Your task to perform on an android device: Open Google Chrome and click the shortcut for Amazon.com Image 0: 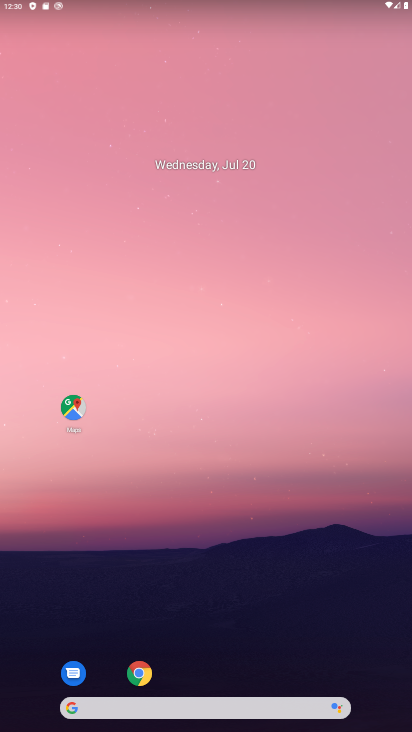
Step 0: click (138, 679)
Your task to perform on an android device: Open Google Chrome and click the shortcut for Amazon.com Image 1: 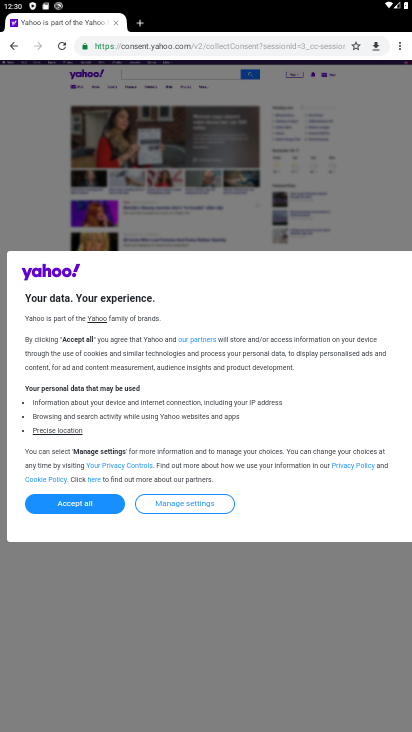
Step 1: click (147, 23)
Your task to perform on an android device: Open Google Chrome and click the shortcut for Amazon.com Image 2: 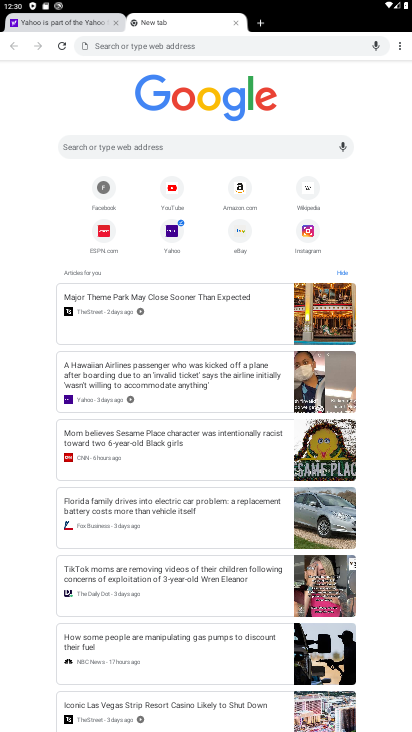
Step 2: click (241, 193)
Your task to perform on an android device: Open Google Chrome and click the shortcut for Amazon.com Image 3: 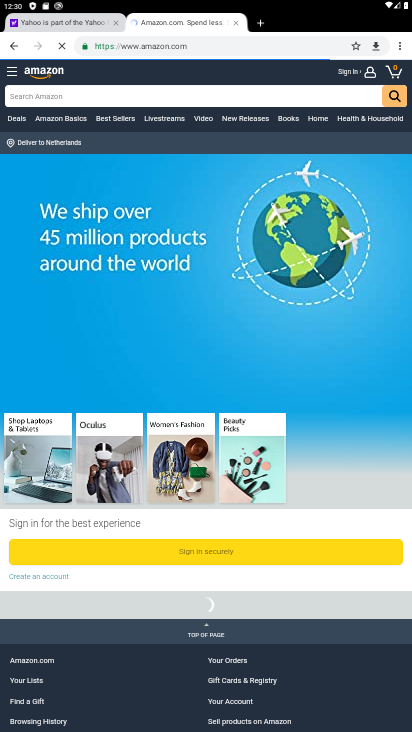
Step 3: task complete